Your task to perform on an android device: set default search engine in the chrome app Image 0: 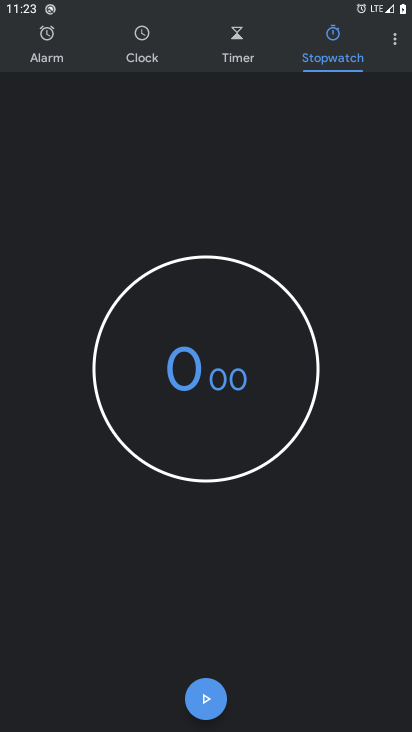
Step 0: press home button
Your task to perform on an android device: set default search engine in the chrome app Image 1: 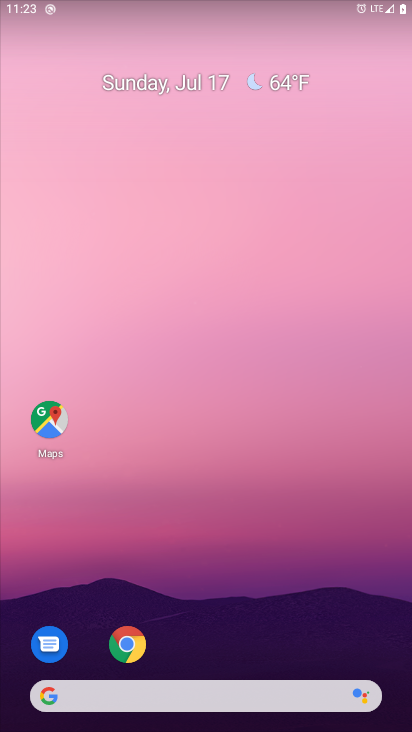
Step 1: click (133, 636)
Your task to perform on an android device: set default search engine in the chrome app Image 2: 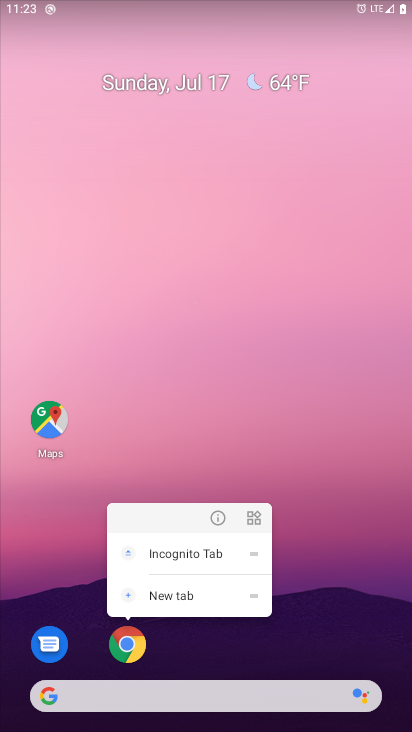
Step 2: click (134, 643)
Your task to perform on an android device: set default search engine in the chrome app Image 3: 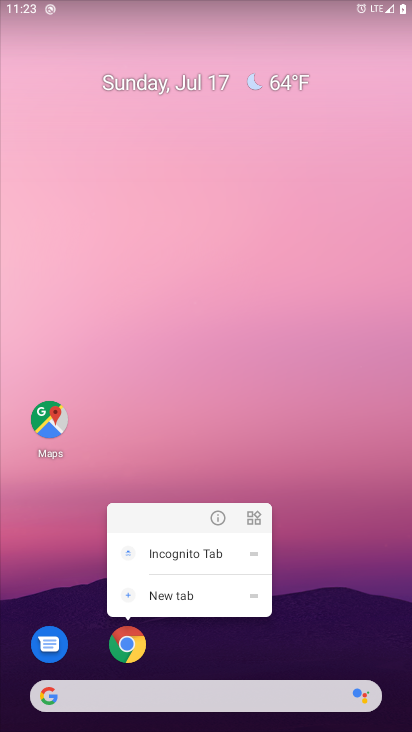
Step 3: click (134, 643)
Your task to perform on an android device: set default search engine in the chrome app Image 4: 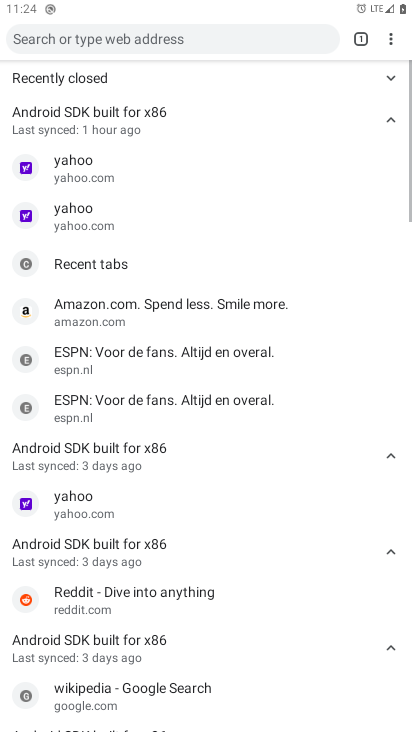
Step 4: drag from (390, 40) to (249, 333)
Your task to perform on an android device: set default search engine in the chrome app Image 5: 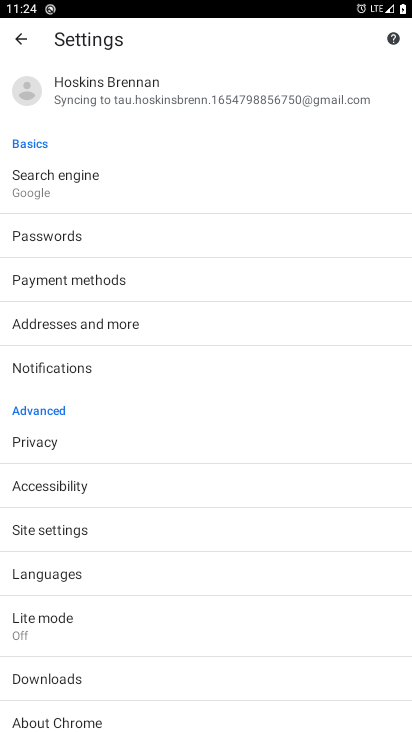
Step 5: click (32, 181)
Your task to perform on an android device: set default search engine in the chrome app Image 6: 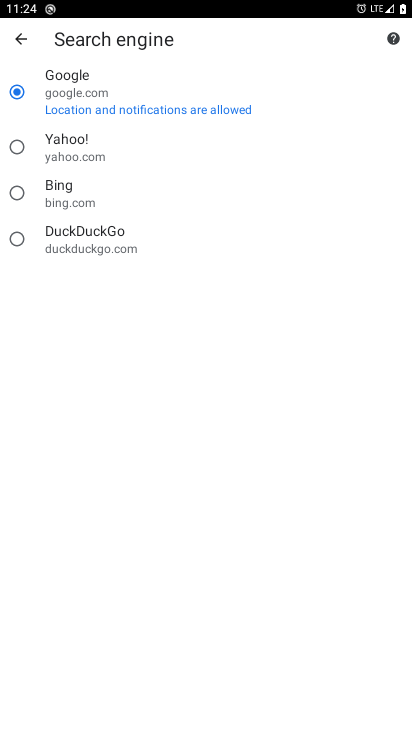
Step 6: task complete